Your task to perform on an android device: Search for Mexican restaurants on Maps Image 0: 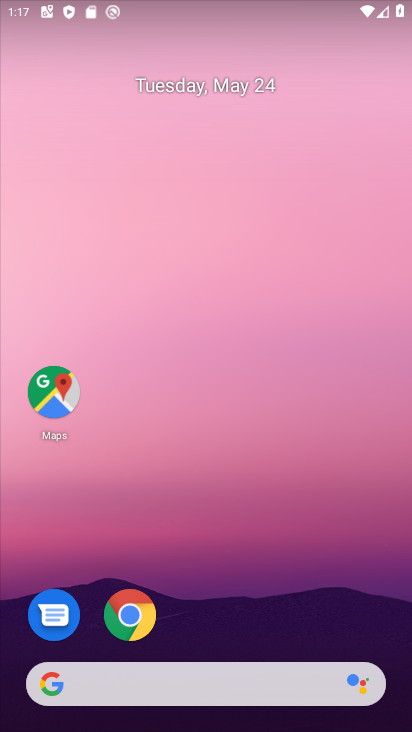
Step 0: click (51, 384)
Your task to perform on an android device: Search for Mexican restaurants on Maps Image 1: 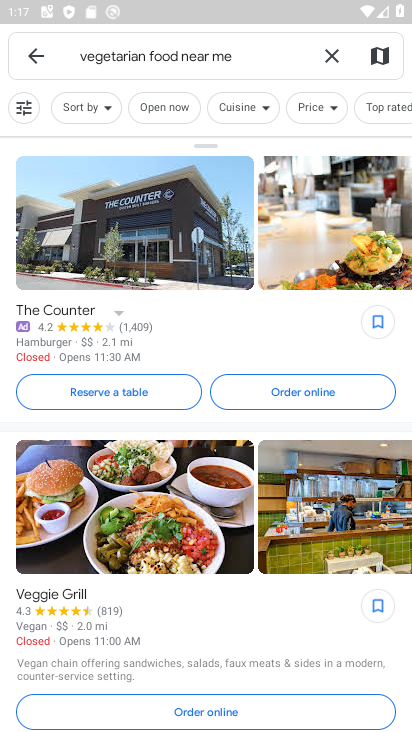
Step 1: click (334, 55)
Your task to perform on an android device: Search for Mexican restaurants on Maps Image 2: 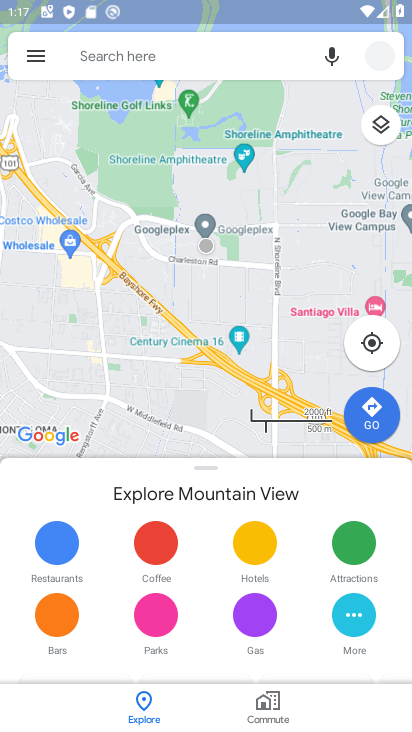
Step 2: click (118, 48)
Your task to perform on an android device: Search for Mexican restaurants on Maps Image 3: 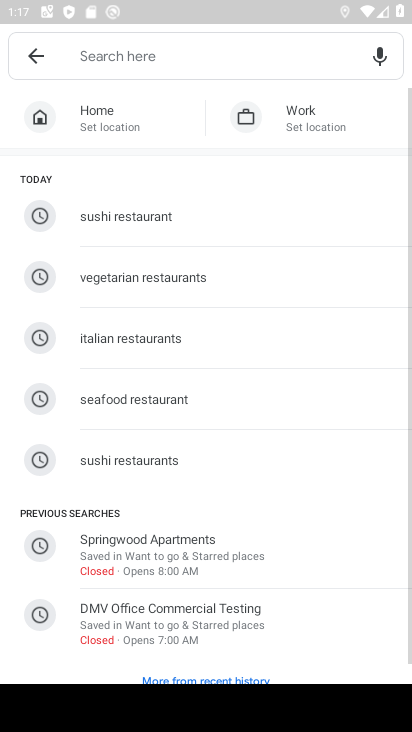
Step 3: type "mexican"
Your task to perform on an android device: Search for Mexican restaurants on Maps Image 4: 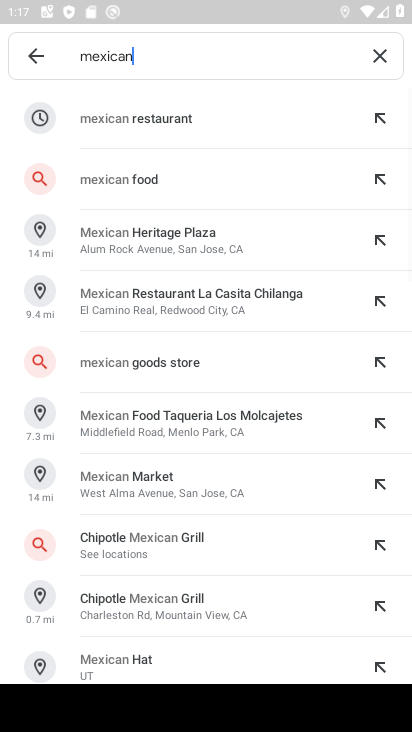
Step 4: click (177, 126)
Your task to perform on an android device: Search for Mexican restaurants on Maps Image 5: 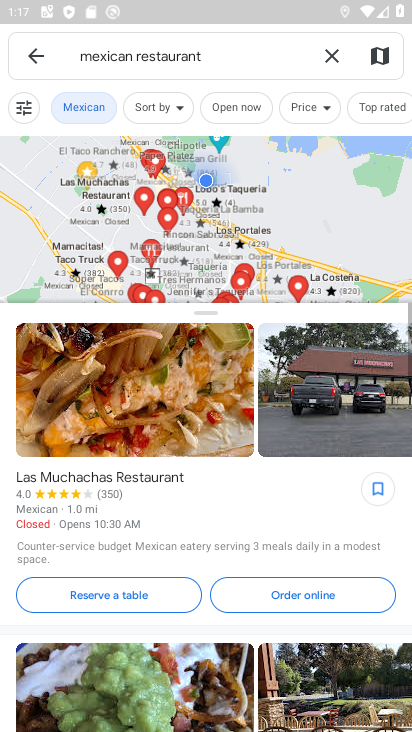
Step 5: task complete